Your task to perform on an android device: Toggle the flashlight Image 0: 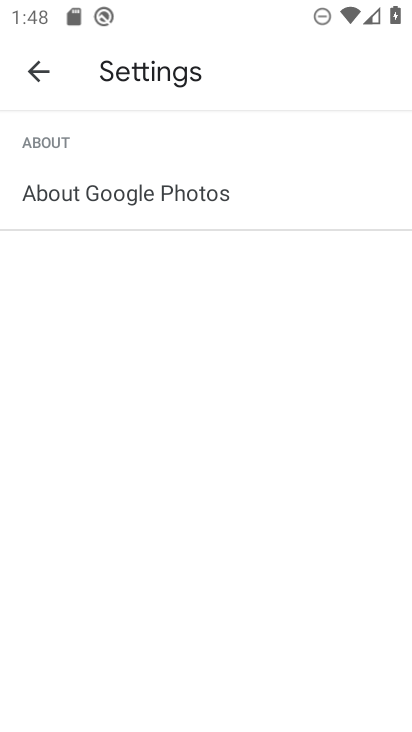
Step 0: drag from (323, 1) to (323, 354)
Your task to perform on an android device: Toggle the flashlight Image 1: 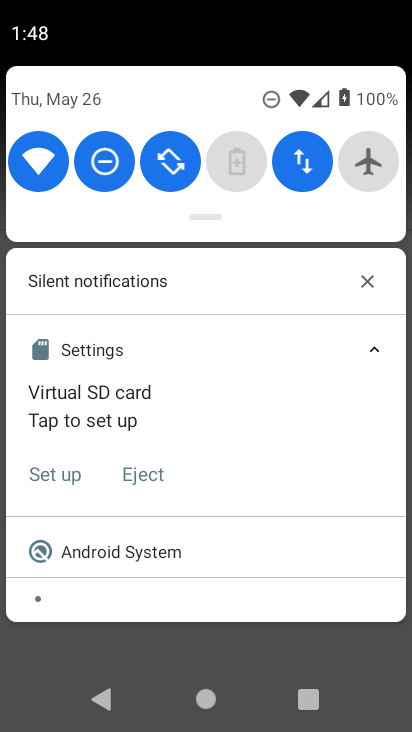
Step 1: drag from (283, 222) to (288, 568)
Your task to perform on an android device: Toggle the flashlight Image 2: 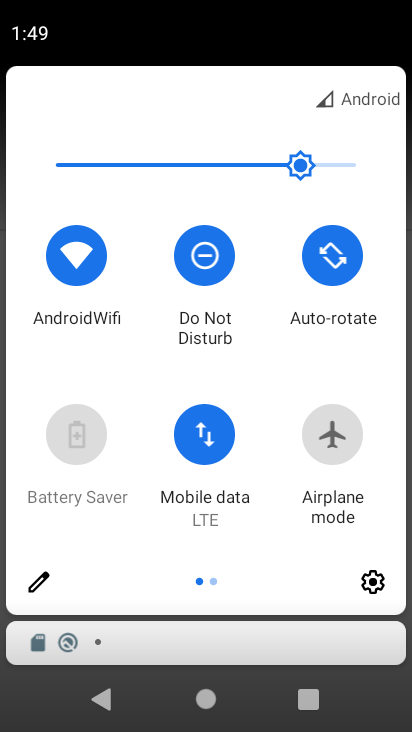
Step 2: click (42, 574)
Your task to perform on an android device: Toggle the flashlight Image 3: 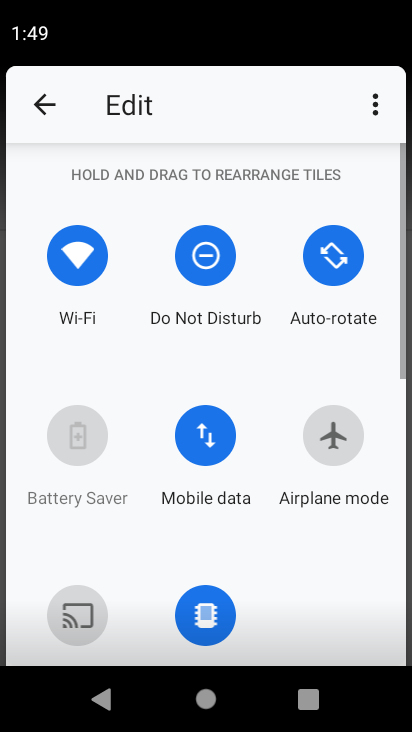
Step 3: task complete